Your task to perform on an android device: Open my contact list Image 0: 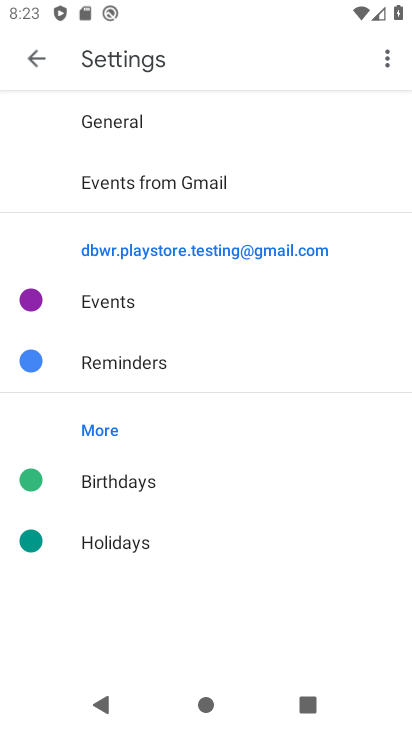
Step 0: press home button
Your task to perform on an android device: Open my contact list Image 1: 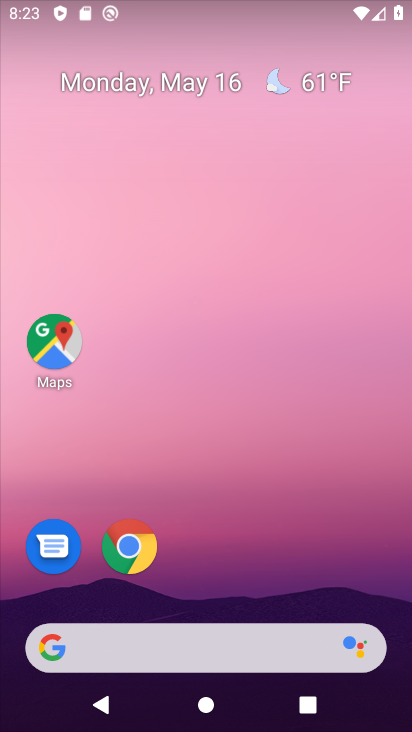
Step 1: drag from (211, 554) to (181, 50)
Your task to perform on an android device: Open my contact list Image 2: 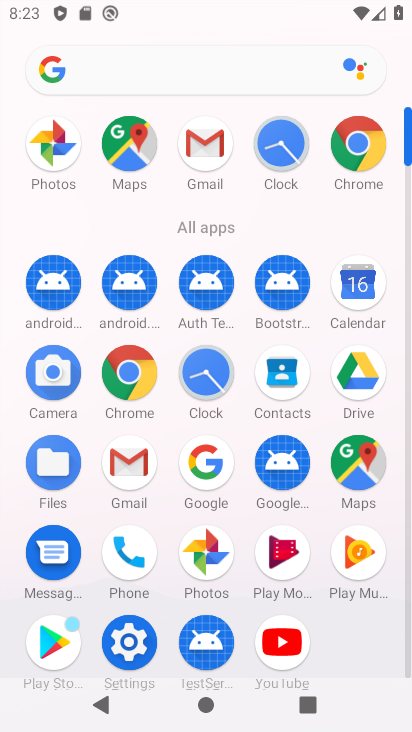
Step 2: click (283, 362)
Your task to perform on an android device: Open my contact list Image 3: 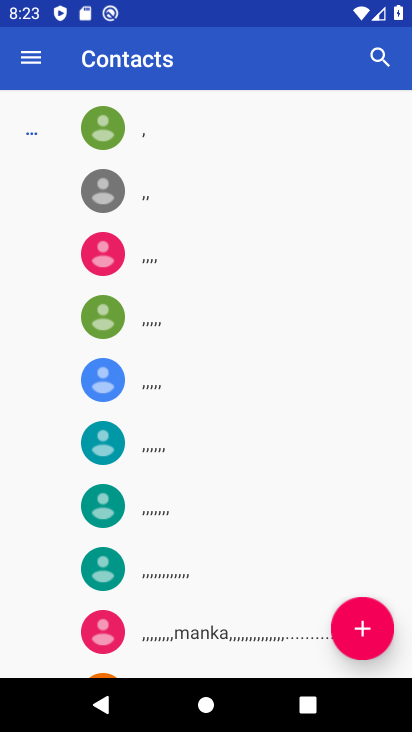
Step 3: task complete